Your task to perform on an android device: turn on notifications settings in the gmail app Image 0: 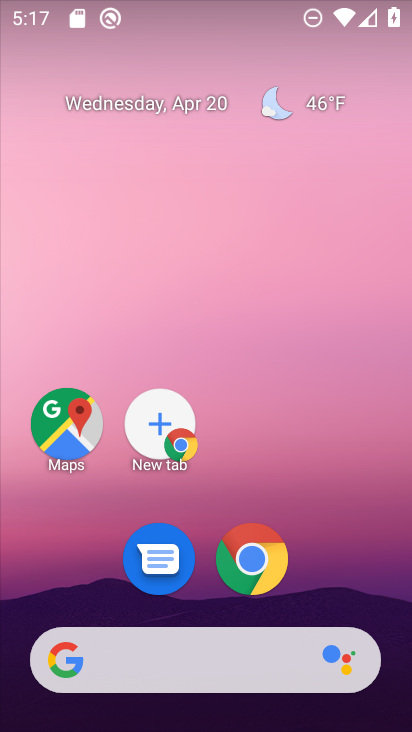
Step 0: drag from (312, 616) to (317, 202)
Your task to perform on an android device: turn on notifications settings in the gmail app Image 1: 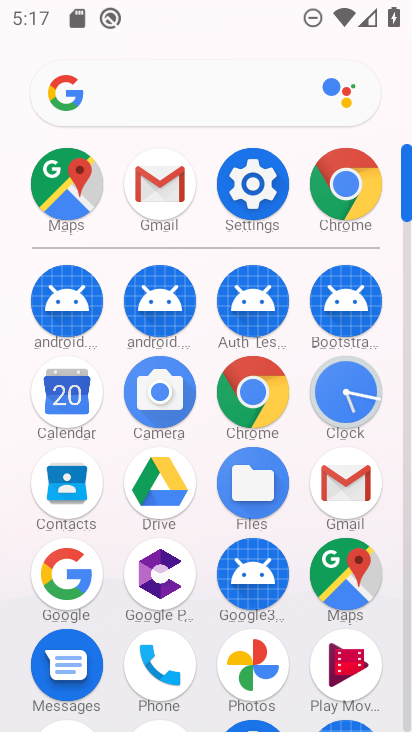
Step 1: click (169, 211)
Your task to perform on an android device: turn on notifications settings in the gmail app Image 2: 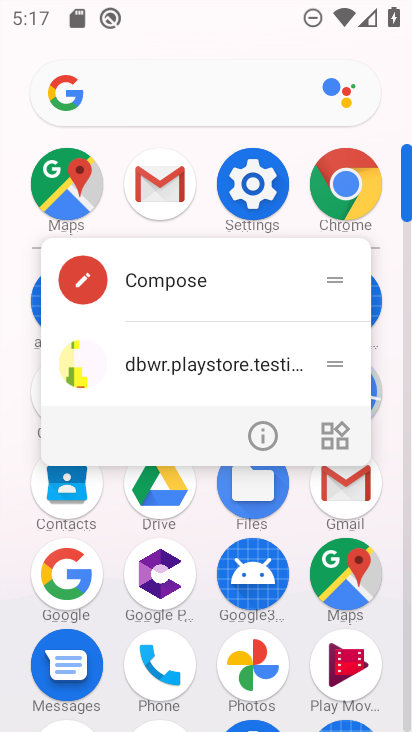
Step 2: click (169, 211)
Your task to perform on an android device: turn on notifications settings in the gmail app Image 3: 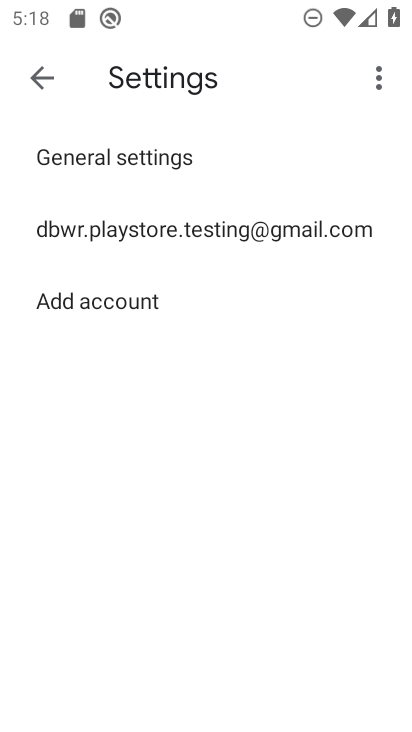
Step 3: click (180, 179)
Your task to perform on an android device: turn on notifications settings in the gmail app Image 4: 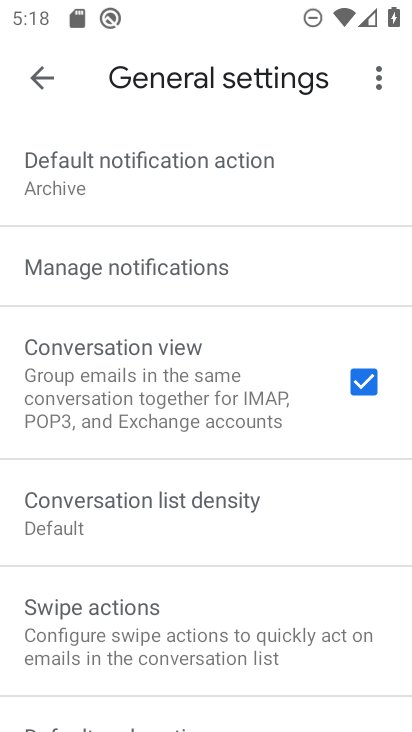
Step 4: click (175, 259)
Your task to perform on an android device: turn on notifications settings in the gmail app Image 5: 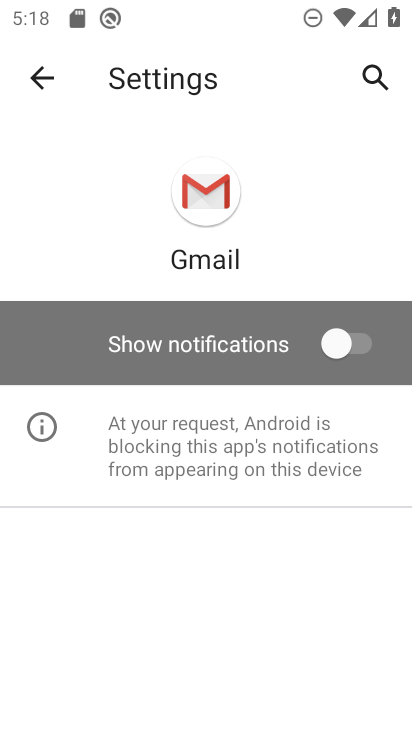
Step 5: click (336, 323)
Your task to perform on an android device: turn on notifications settings in the gmail app Image 6: 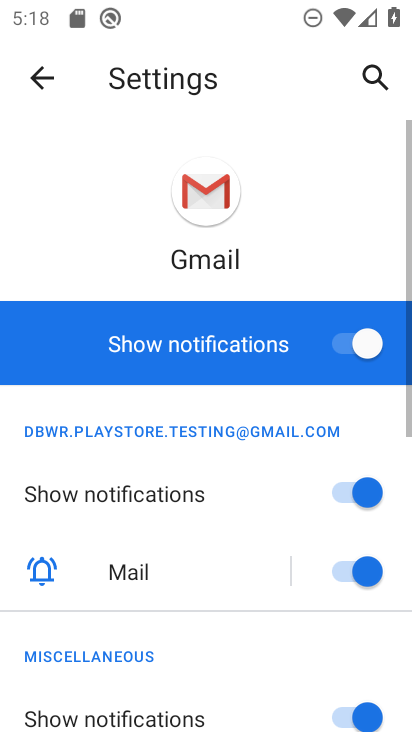
Step 6: task complete